Your task to perform on an android device: remove spam from my inbox in the gmail app Image 0: 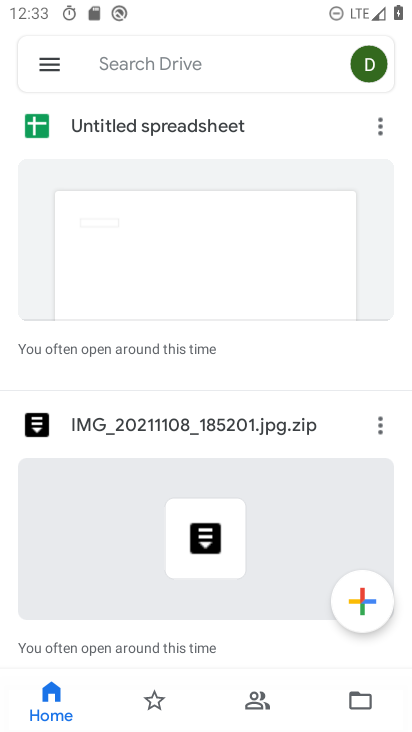
Step 0: press home button
Your task to perform on an android device: remove spam from my inbox in the gmail app Image 1: 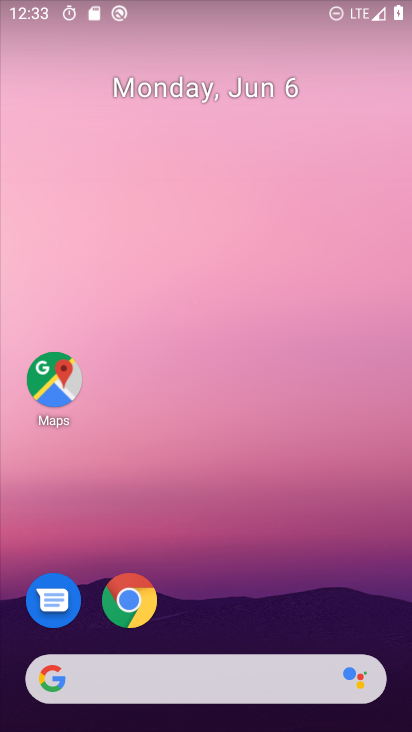
Step 1: drag from (237, 623) to (223, 248)
Your task to perform on an android device: remove spam from my inbox in the gmail app Image 2: 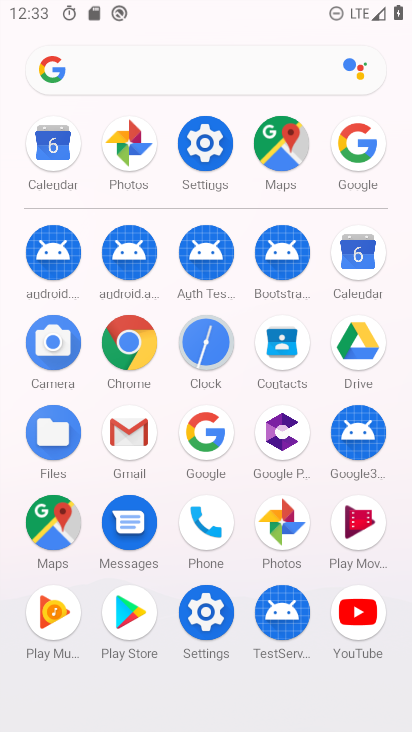
Step 2: click (146, 445)
Your task to perform on an android device: remove spam from my inbox in the gmail app Image 3: 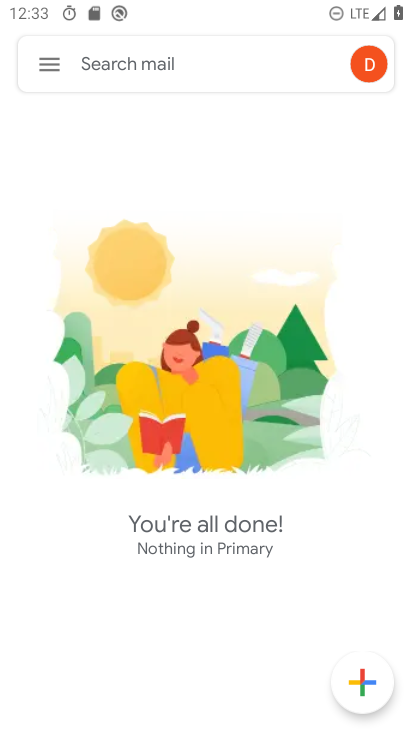
Step 3: click (56, 64)
Your task to perform on an android device: remove spam from my inbox in the gmail app Image 4: 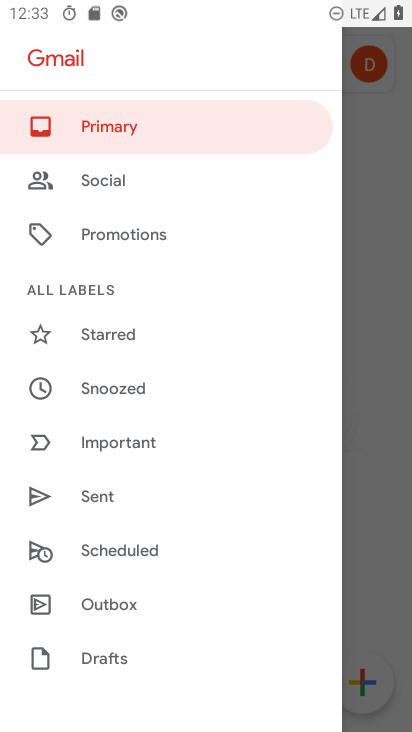
Step 4: drag from (142, 626) to (172, 403)
Your task to perform on an android device: remove spam from my inbox in the gmail app Image 5: 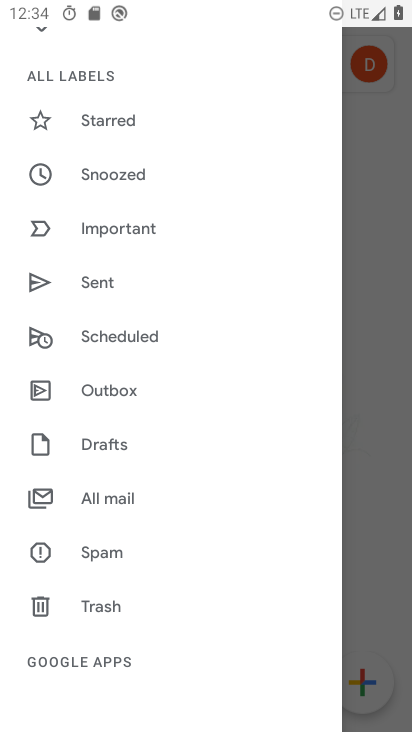
Step 5: click (116, 556)
Your task to perform on an android device: remove spam from my inbox in the gmail app Image 6: 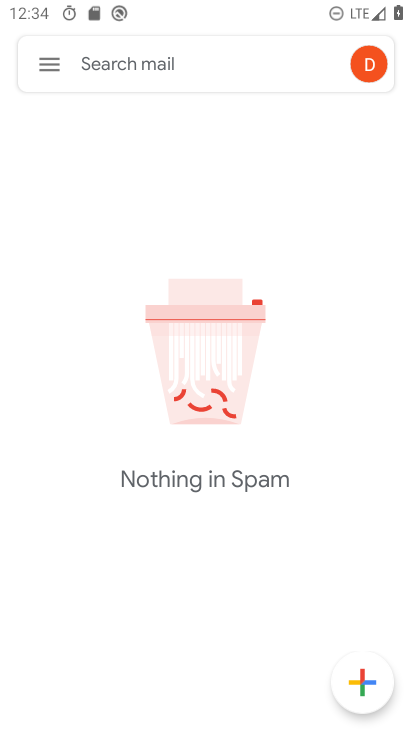
Step 6: task complete